Your task to perform on an android device: check storage Image 0: 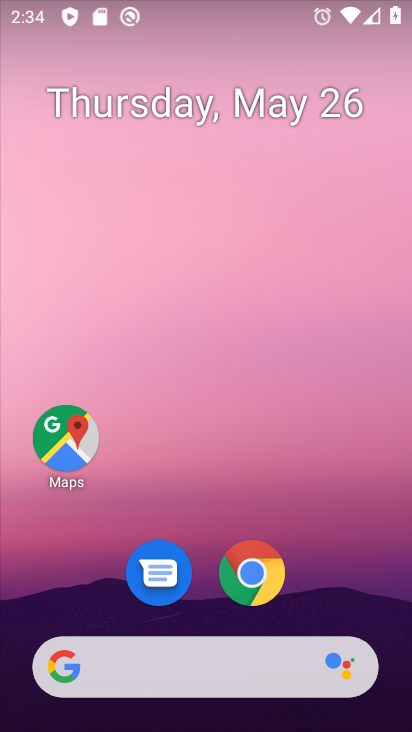
Step 0: drag from (329, 591) to (288, 96)
Your task to perform on an android device: check storage Image 1: 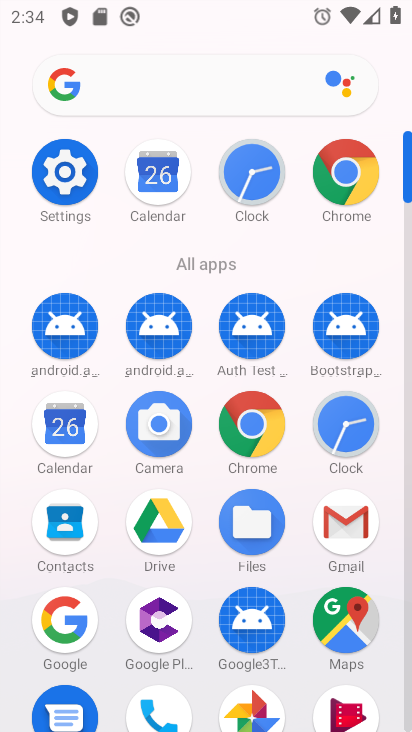
Step 1: click (68, 173)
Your task to perform on an android device: check storage Image 2: 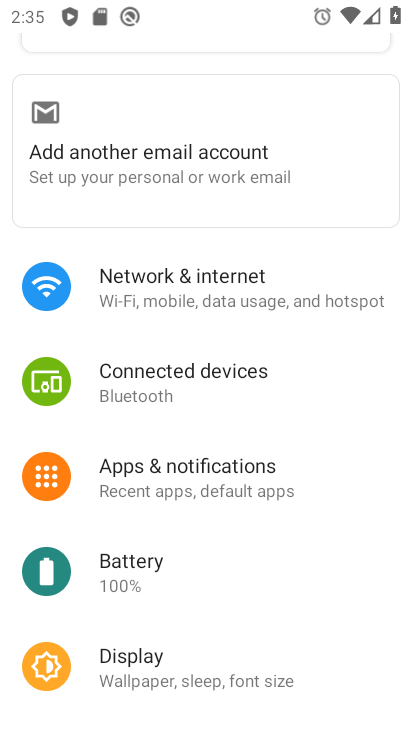
Step 2: drag from (180, 598) to (229, 472)
Your task to perform on an android device: check storage Image 3: 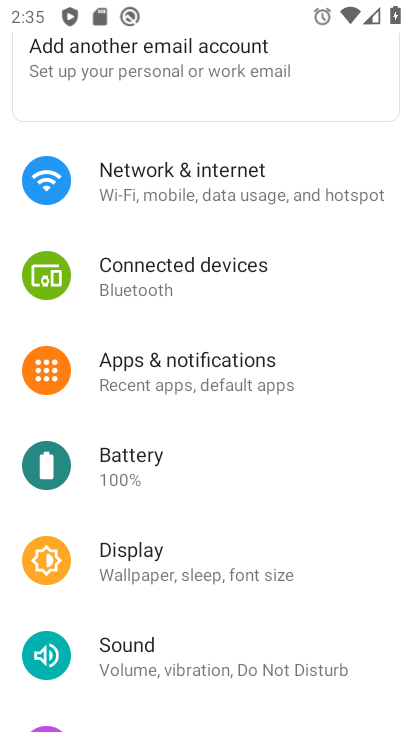
Step 3: drag from (162, 625) to (194, 545)
Your task to perform on an android device: check storage Image 4: 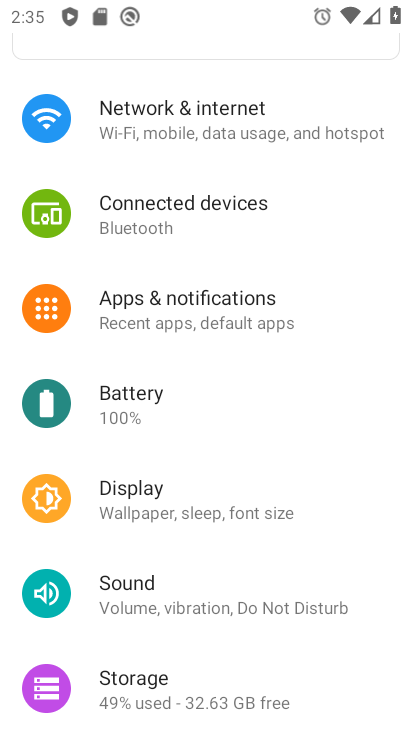
Step 4: drag from (184, 554) to (216, 465)
Your task to perform on an android device: check storage Image 5: 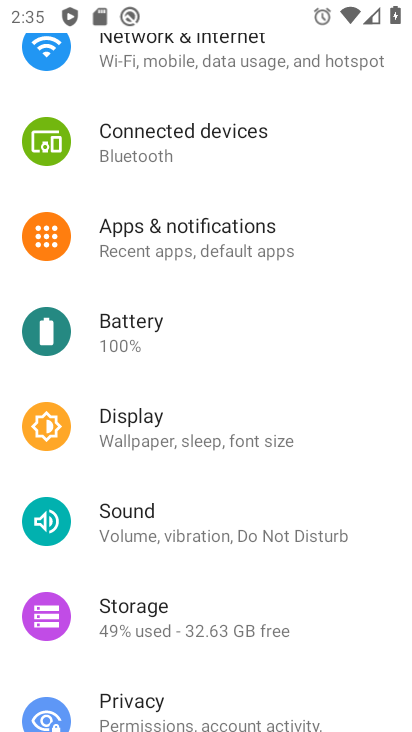
Step 5: click (160, 615)
Your task to perform on an android device: check storage Image 6: 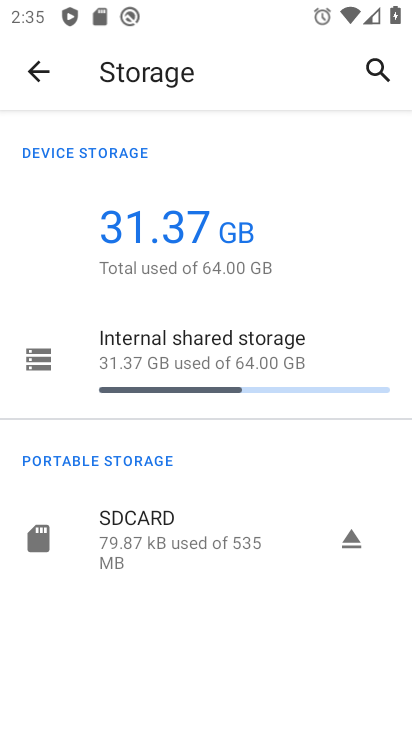
Step 6: task complete